Your task to perform on an android device: turn off picture-in-picture Image 0: 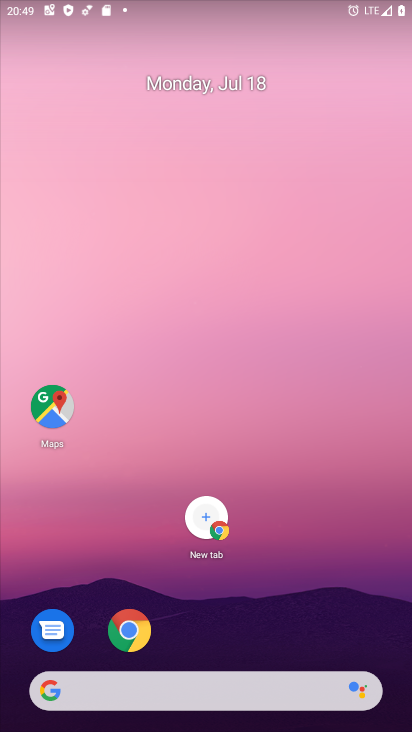
Step 0: click (112, 632)
Your task to perform on an android device: turn off picture-in-picture Image 1: 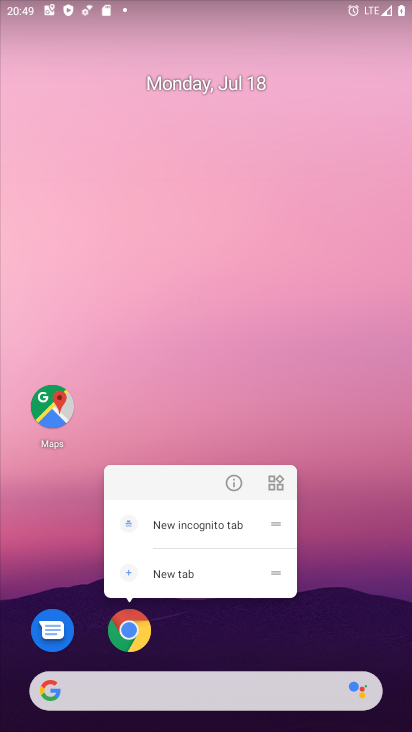
Step 1: click (231, 487)
Your task to perform on an android device: turn off picture-in-picture Image 2: 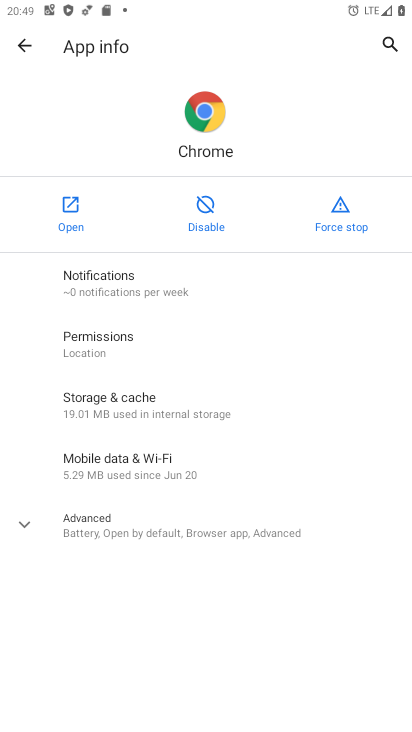
Step 2: click (178, 531)
Your task to perform on an android device: turn off picture-in-picture Image 3: 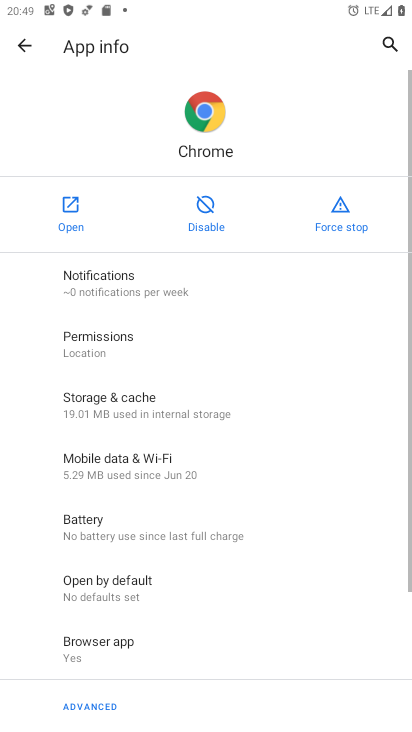
Step 3: drag from (186, 645) to (226, 186)
Your task to perform on an android device: turn off picture-in-picture Image 4: 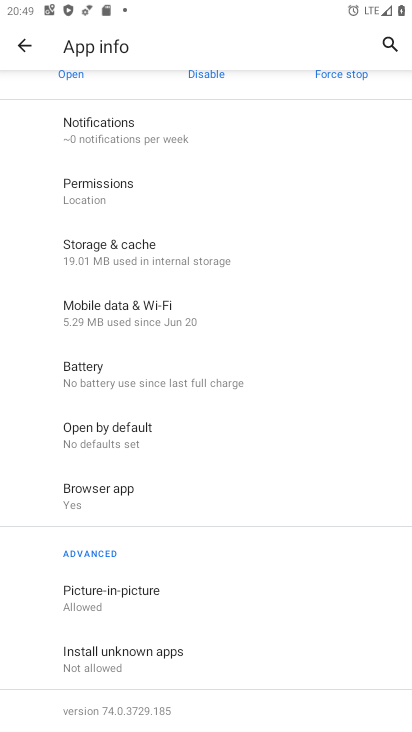
Step 4: click (92, 603)
Your task to perform on an android device: turn off picture-in-picture Image 5: 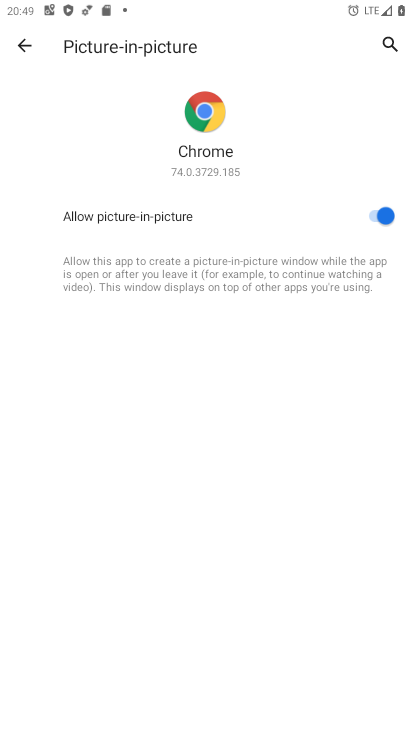
Step 5: click (372, 220)
Your task to perform on an android device: turn off picture-in-picture Image 6: 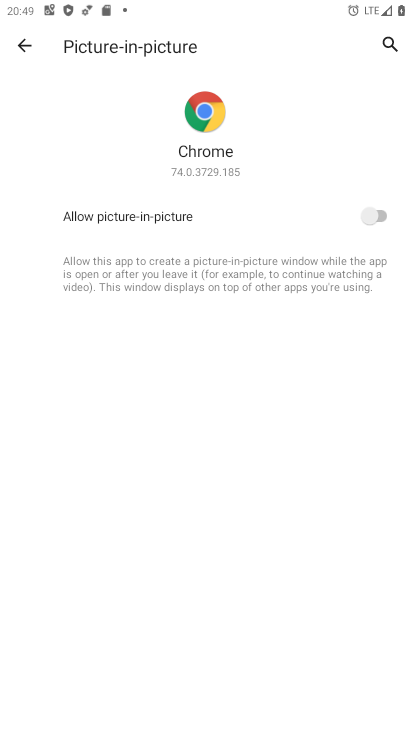
Step 6: task complete